Your task to perform on an android device: Look up the best rated headphones on Walmart. Image 0: 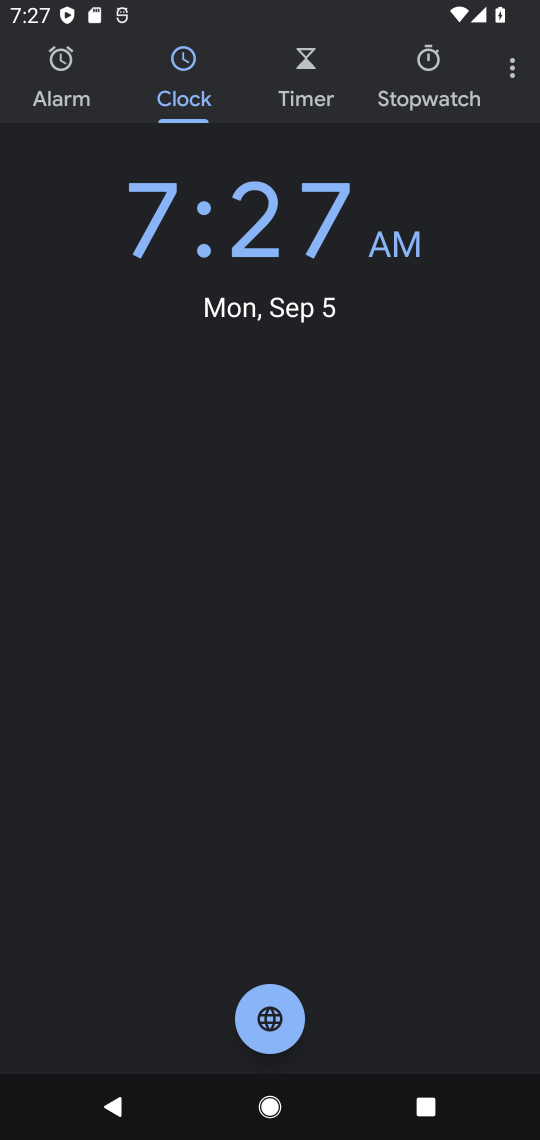
Step 0: press home button
Your task to perform on an android device: Look up the best rated headphones on Walmart. Image 1: 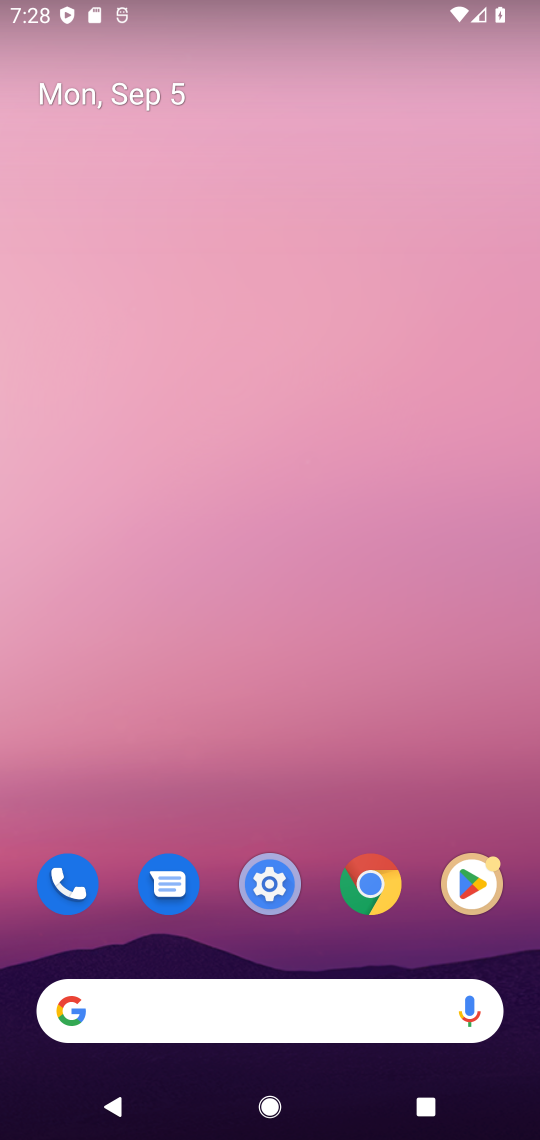
Step 1: click (374, 878)
Your task to perform on an android device: Look up the best rated headphones on Walmart. Image 2: 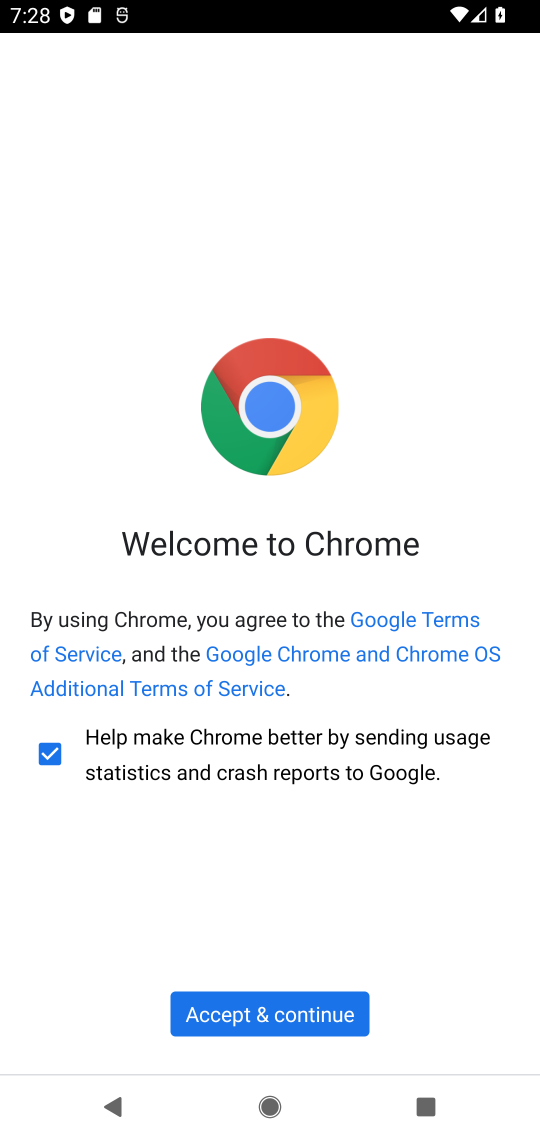
Step 2: click (288, 1014)
Your task to perform on an android device: Look up the best rated headphones on Walmart. Image 3: 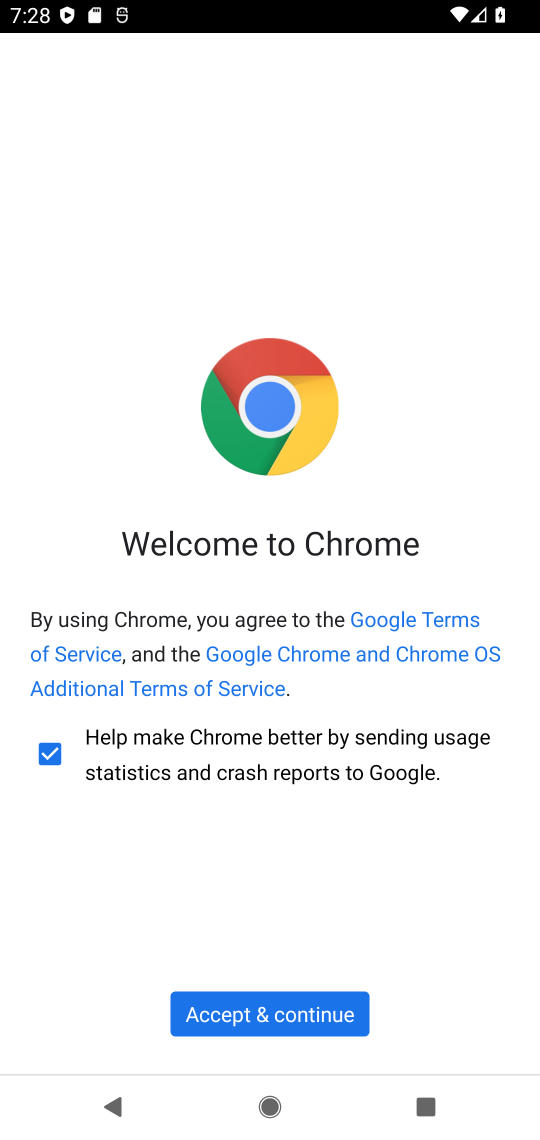
Step 3: click (288, 1014)
Your task to perform on an android device: Look up the best rated headphones on Walmart. Image 4: 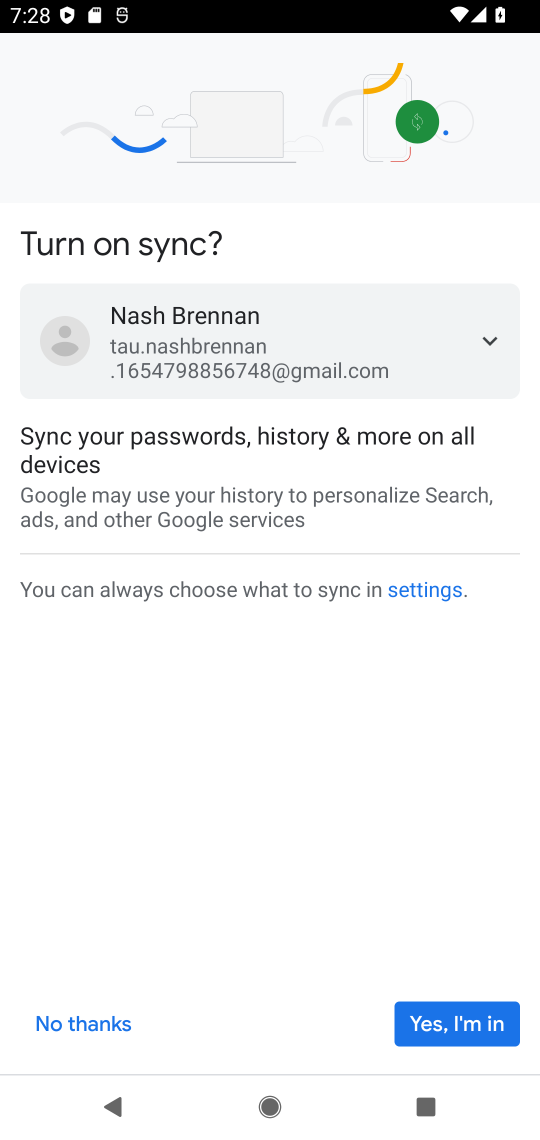
Step 4: click (413, 1025)
Your task to perform on an android device: Look up the best rated headphones on Walmart. Image 5: 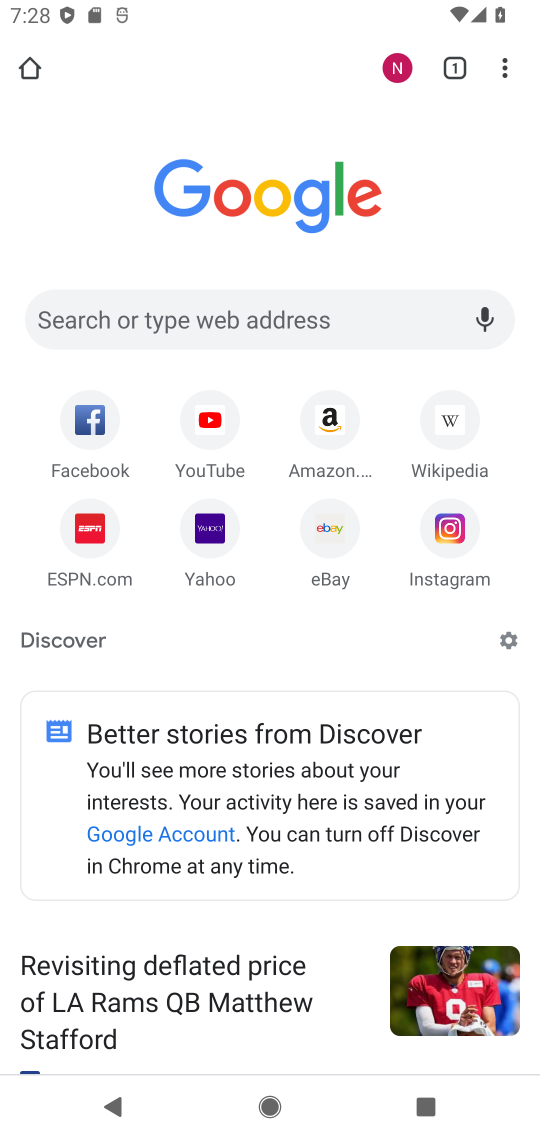
Step 5: click (292, 328)
Your task to perform on an android device: Look up the best rated headphones on Walmart. Image 6: 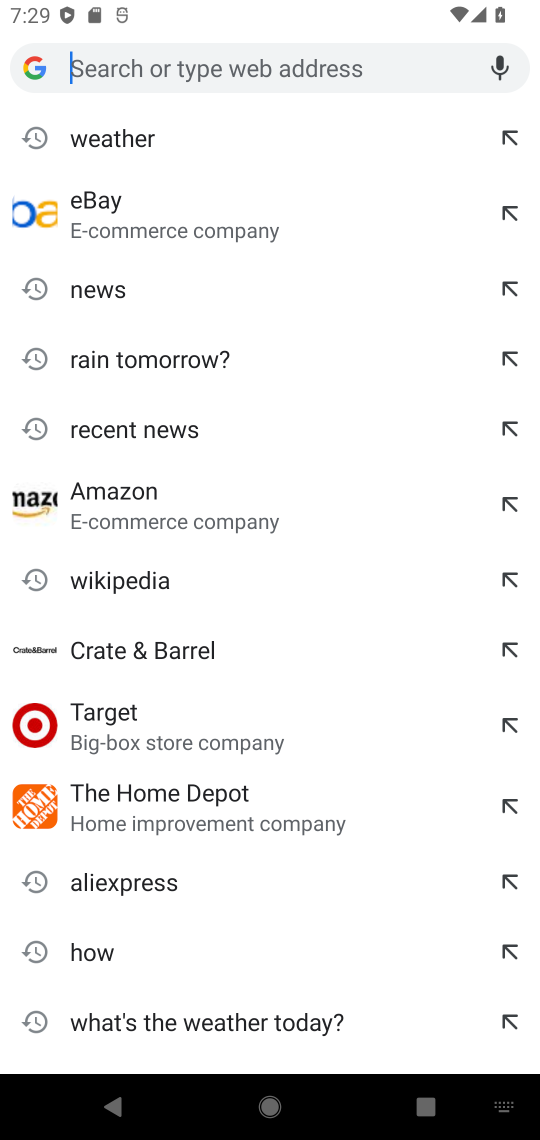
Step 6: type "walmart"
Your task to perform on an android device: Look up the best rated headphones on Walmart. Image 7: 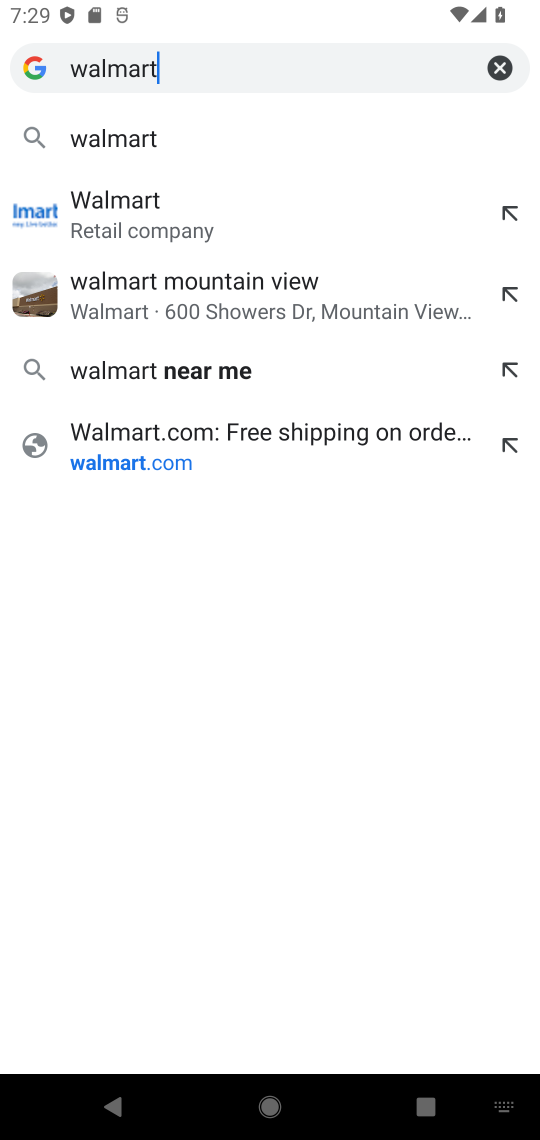
Step 7: click (168, 444)
Your task to perform on an android device: Look up the best rated headphones on Walmart. Image 8: 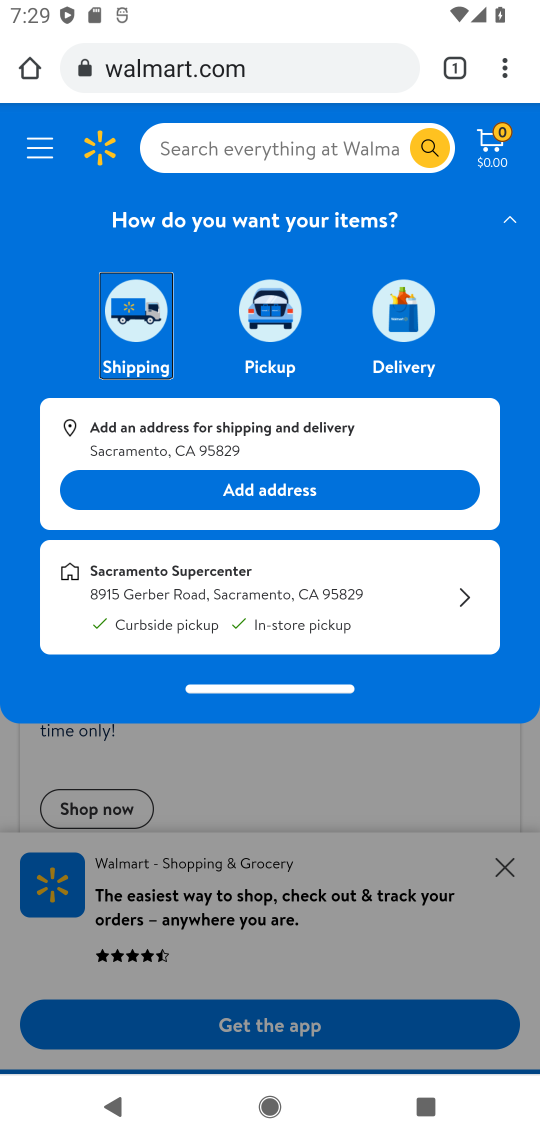
Step 8: click (287, 162)
Your task to perform on an android device: Look up the best rated headphones on Walmart. Image 9: 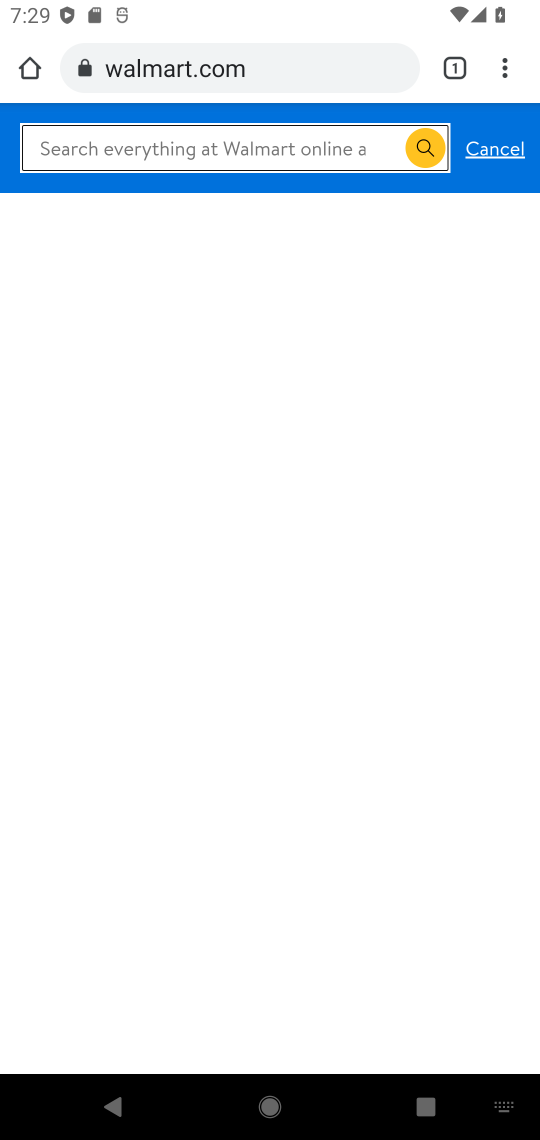
Step 9: click (366, 159)
Your task to perform on an android device: Look up the best rated headphones on Walmart. Image 10: 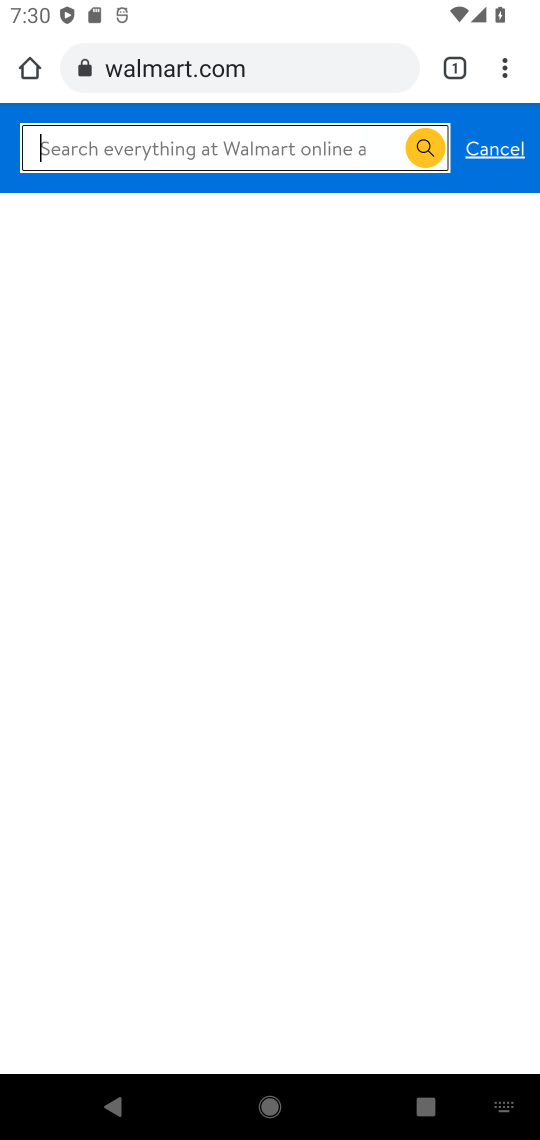
Step 10: type "best rated headphones"
Your task to perform on an android device: Look up the best rated headphones on Walmart. Image 11: 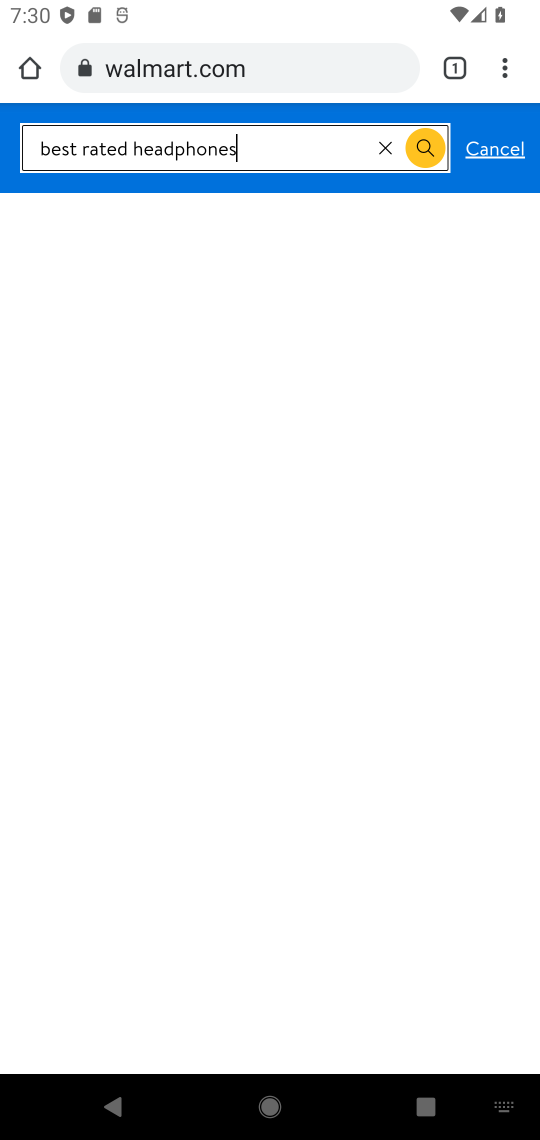
Step 11: click (429, 153)
Your task to perform on an android device: Look up the best rated headphones on Walmart. Image 12: 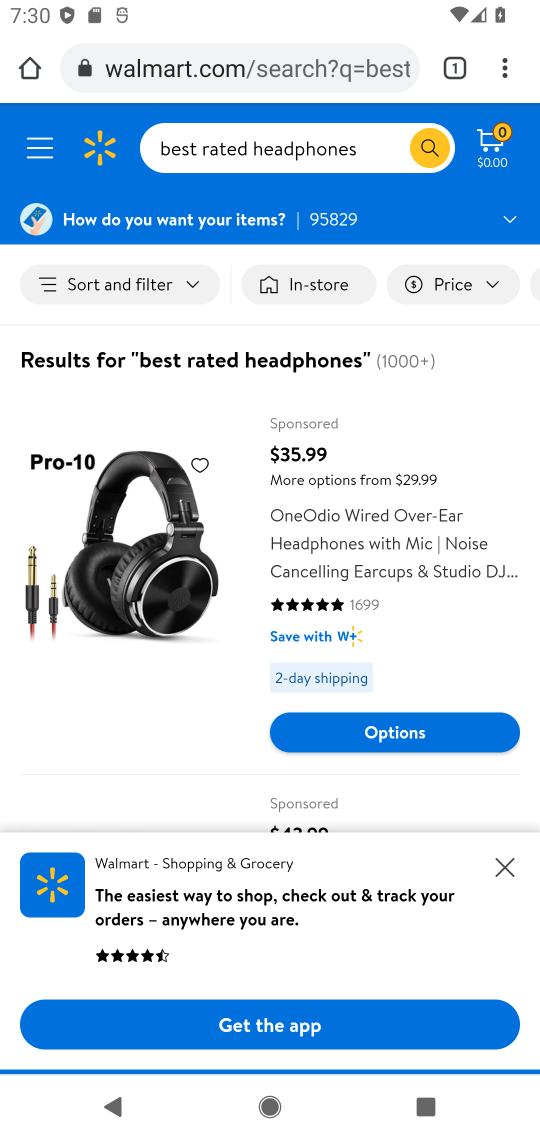
Step 12: task complete